Your task to perform on an android device: What's on the menu at Domino's? Image 0: 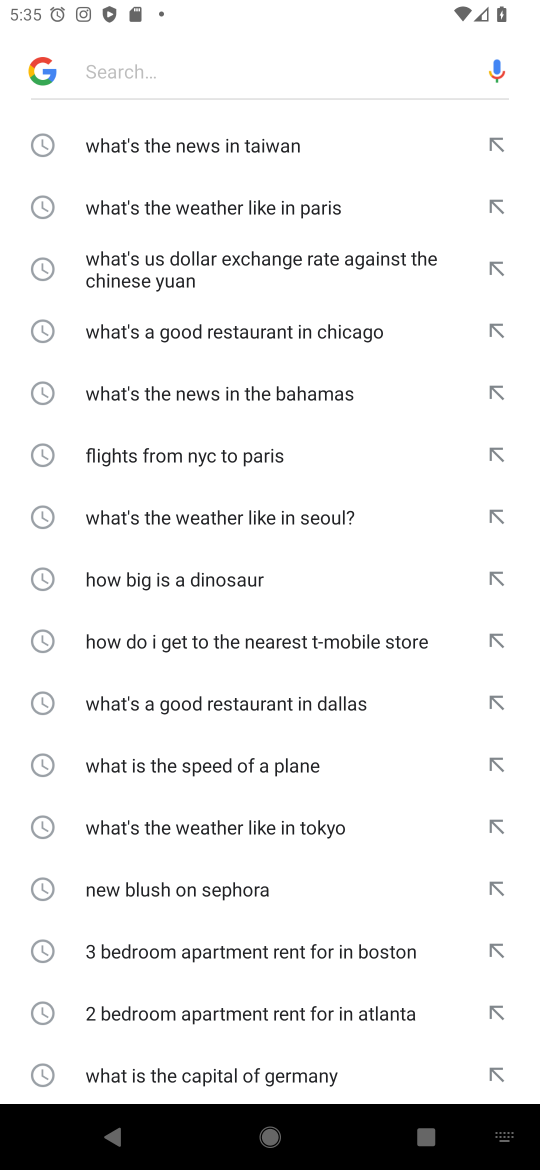
Step 0: press home button
Your task to perform on an android device: What's on the menu at Domino's? Image 1: 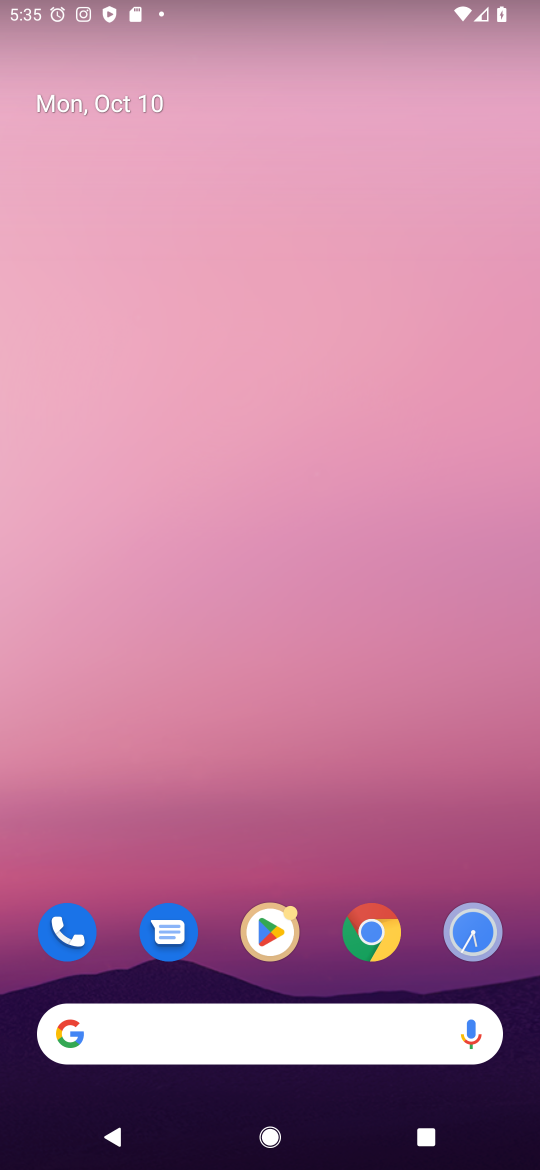
Step 1: click (277, 1037)
Your task to perform on an android device: What's on the menu at Domino's? Image 2: 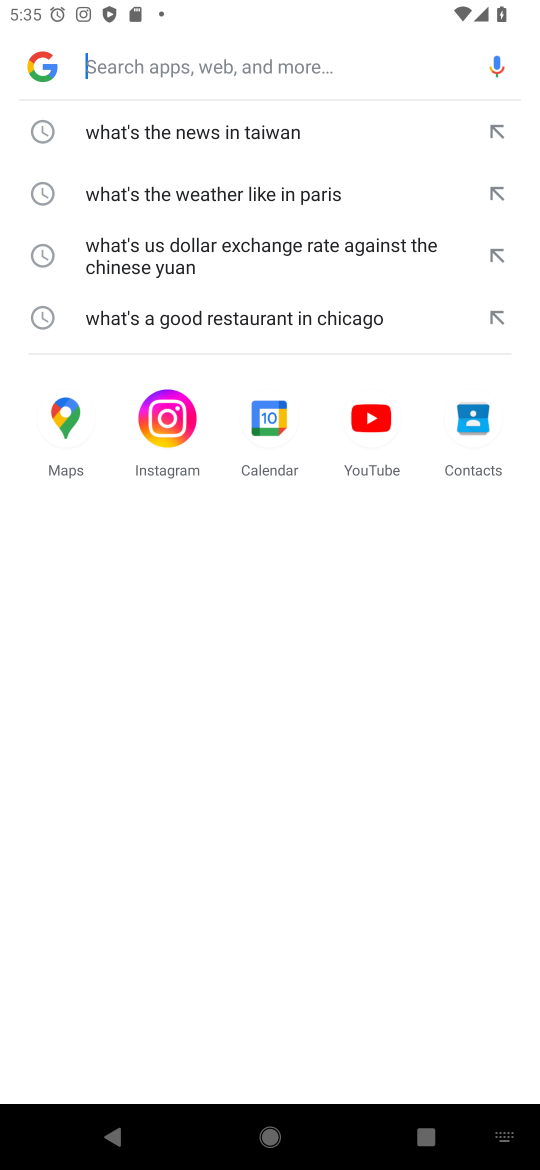
Step 2: press enter
Your task to perform on an android device: What's on the menu at Domino's? Image 3: 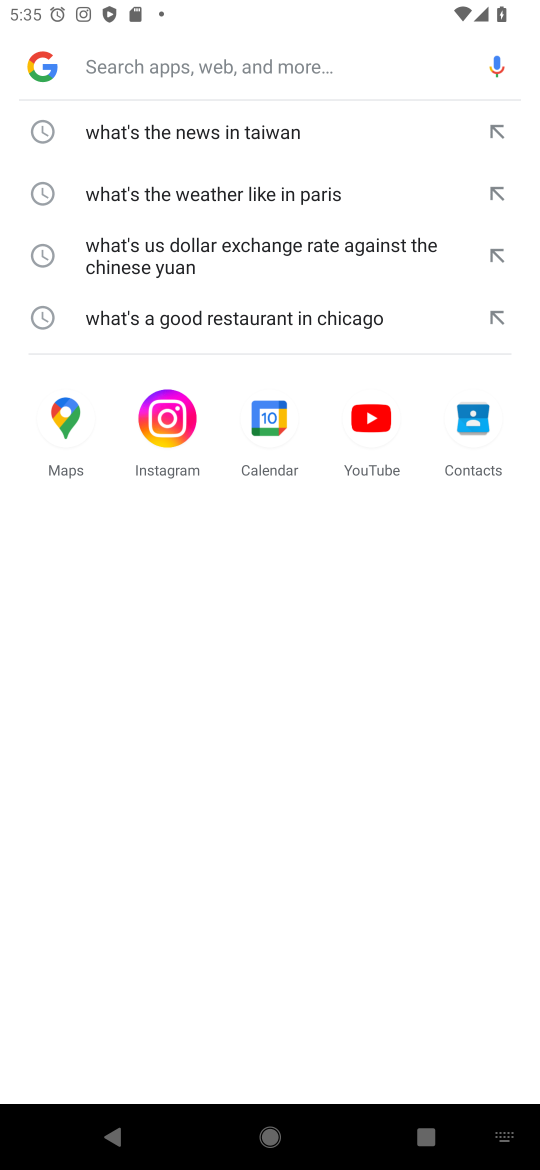
Step 3: type "What's on the menu at Domino's"
Your task to perform on an android device: What's on the menu at Domino's? Image 4: 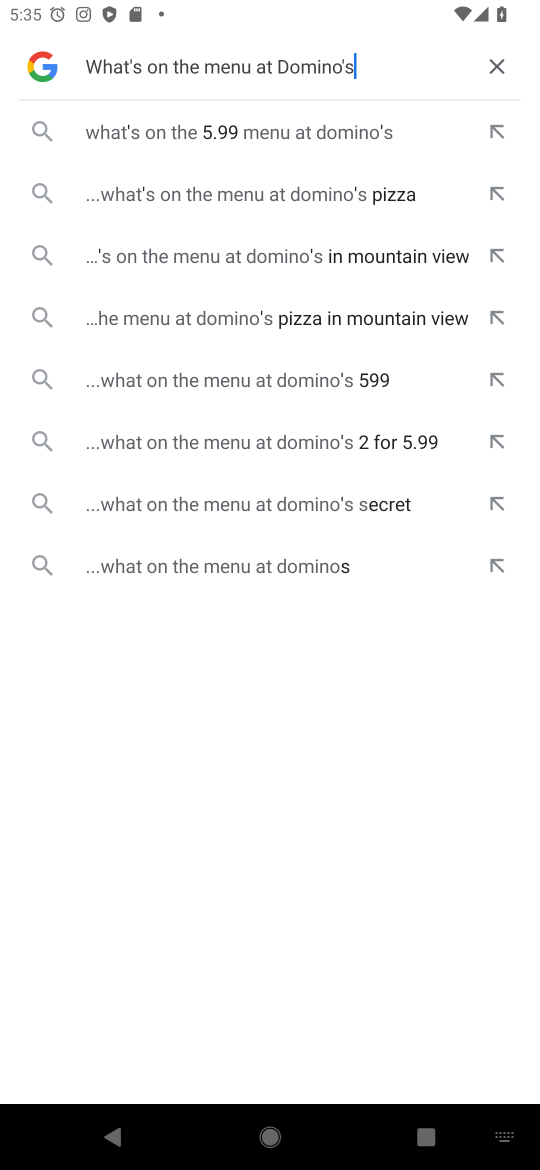
Step 4: press enter
Your task to perform on an android device: What's on the menu at Domino's? Image 5: 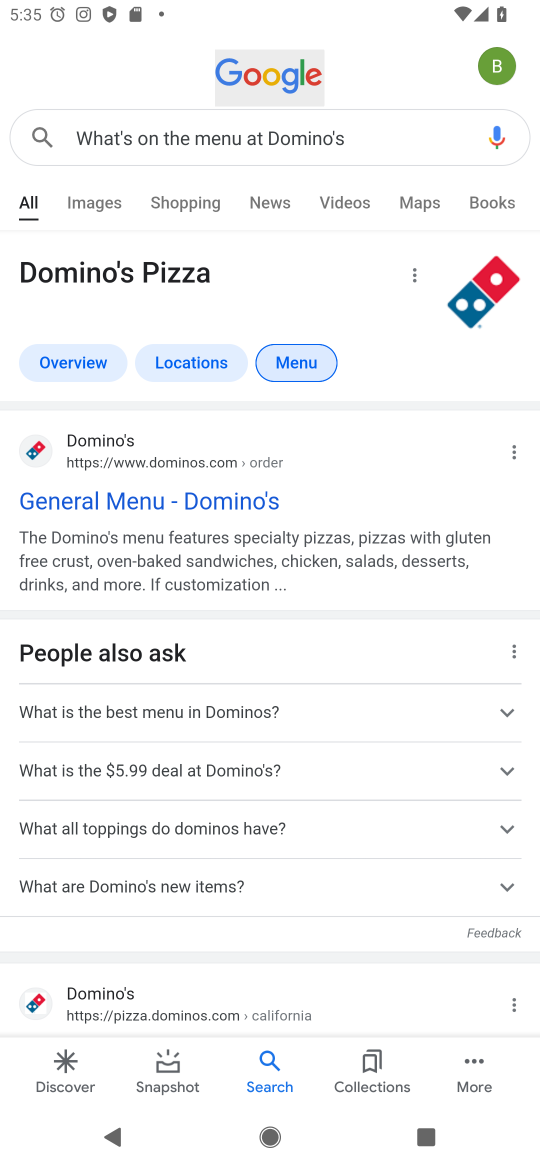
Step 5: click (303, 364)
Your task to perform on an android device: What's on the menu at Domino's? Image 6: 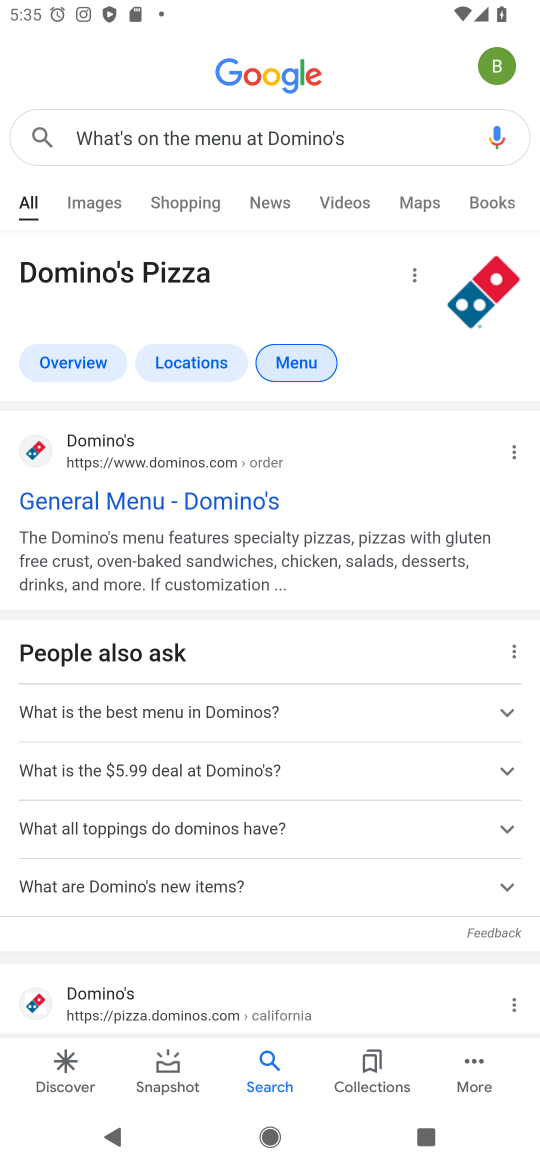
Step 6: click (286, 365)
Your task to perform on an android device: What's on the menu at Domino's? Image 7: 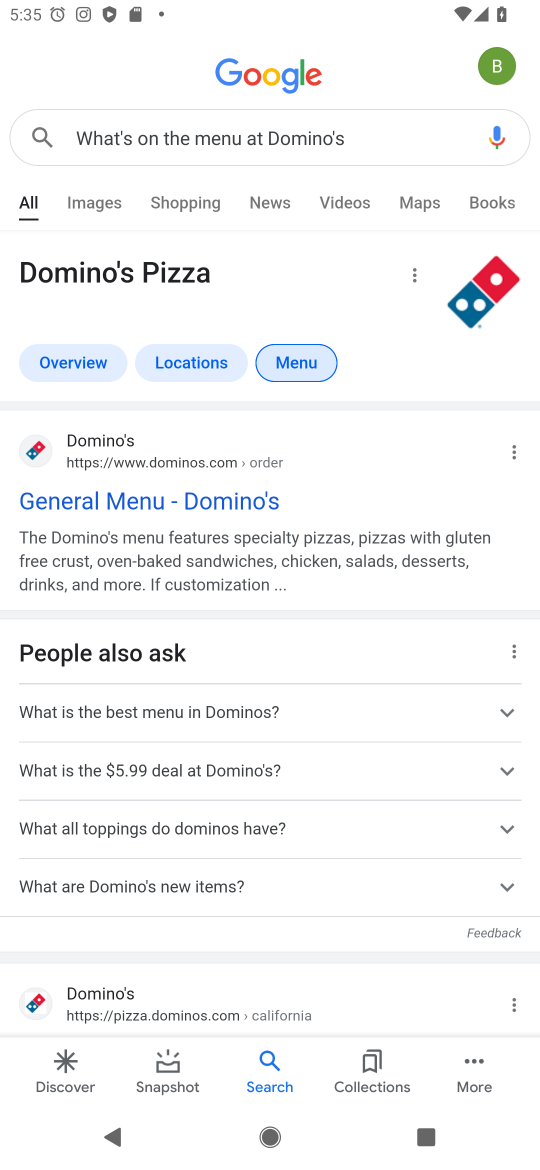
Step 7: drag from (302, 770) to (301, 472)
Your task to perform on an android device: What's on the menu at Domino's? Image 8: 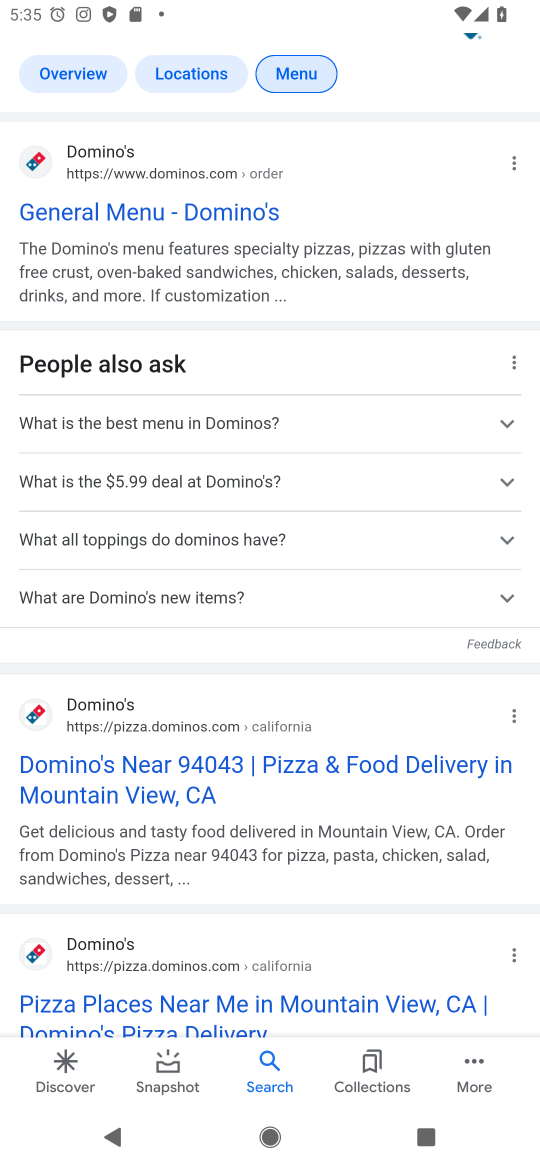
Step 8: click (255, 212)
Your task to perform on an android device: What's on the menu at Domino's? Image 9: 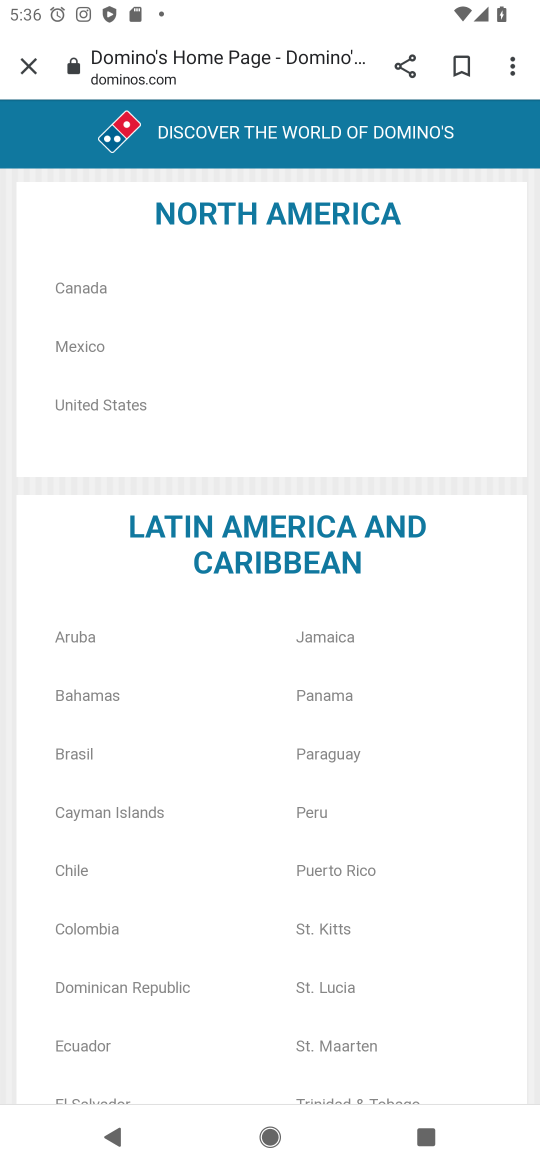
Step 9: task complete